Your task to perform on an android device: open a new tab in the chrome app Image 0: 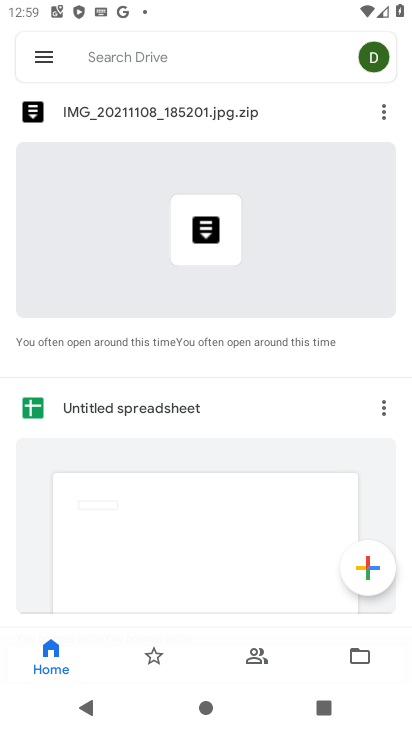
Step 0: press home button
Your task to perform on an android device: open a new tab in the chrome app Image 1: 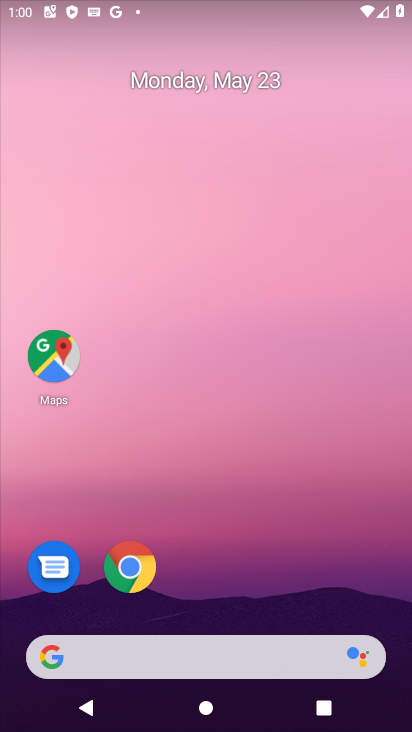
Step 1: click (143, 569)
Your task to perform on an android device: open a new tab in the chrome app Image 2: 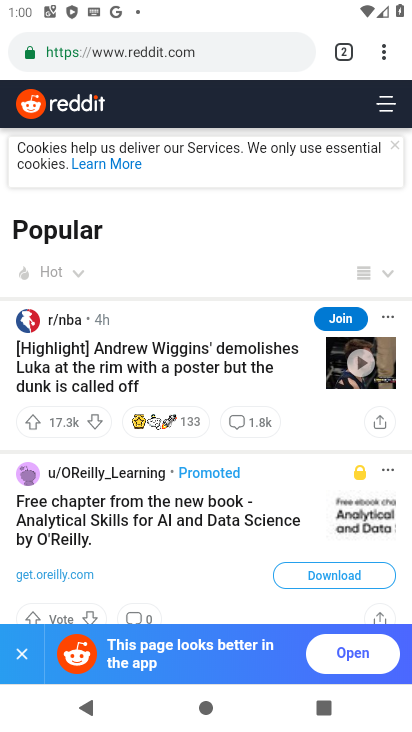
Step 2: click (386, 46)
Your task to perform on an android device: open a new tab in the chrome app Image 3: 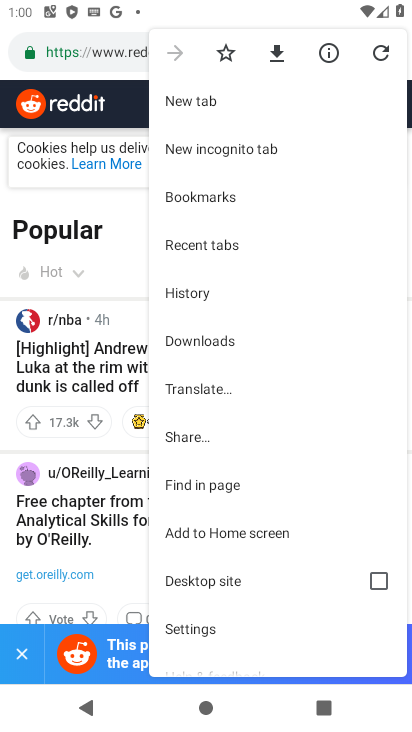
Step 3: click (268, 93)
Your task to perform on an android device: open a new tab in the chrome app Image 4: 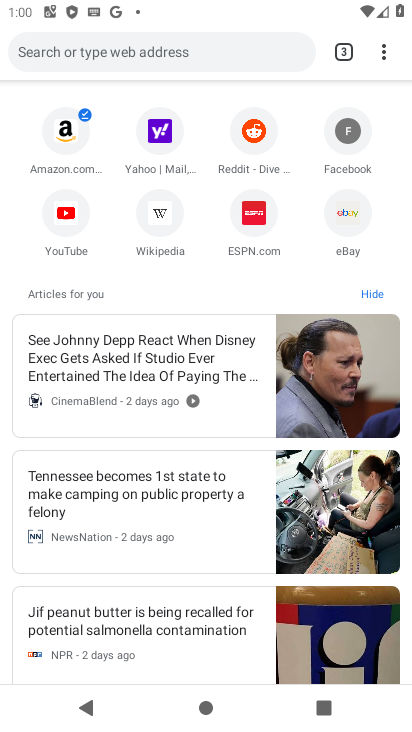
Step 4: task complete